Your task to perform on an android device: Open Wikipedia Image 0: 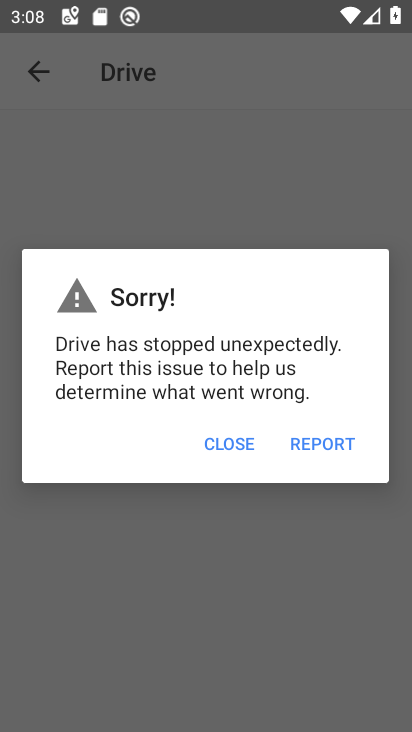
Step 0: press home button
Your task to perform on an android device: Open Wikipedia Image 1: 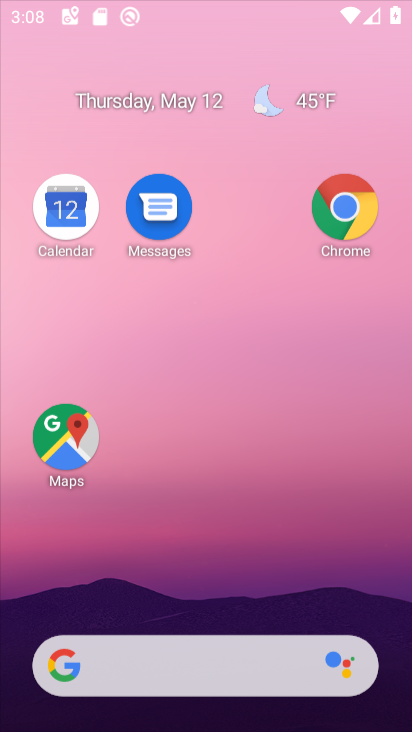
Step 1: drag from (195, 650) to (248, 212)
Your task to perform on an android device: Open Wikipedia Image 2: 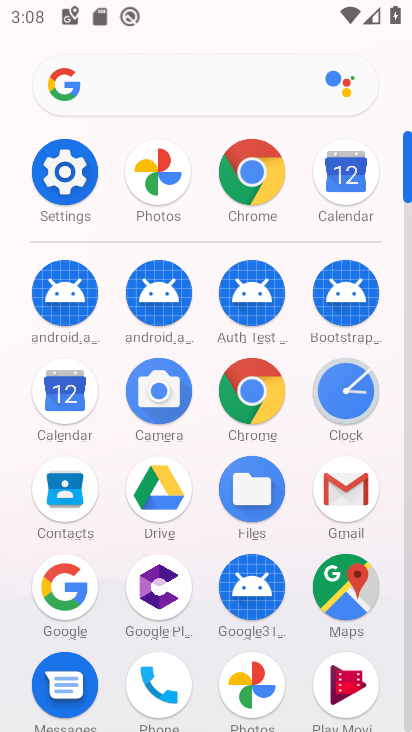
Step 2: click (248, 379)
Your task to perform on an android device: Open Wikipedia Image 3: 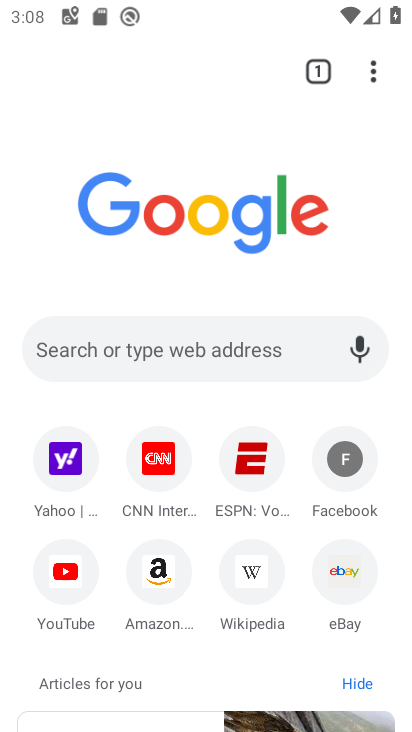
Step 3: click (249, 576)
Your task to perform on an android device: Open Wikipedia Image 4: 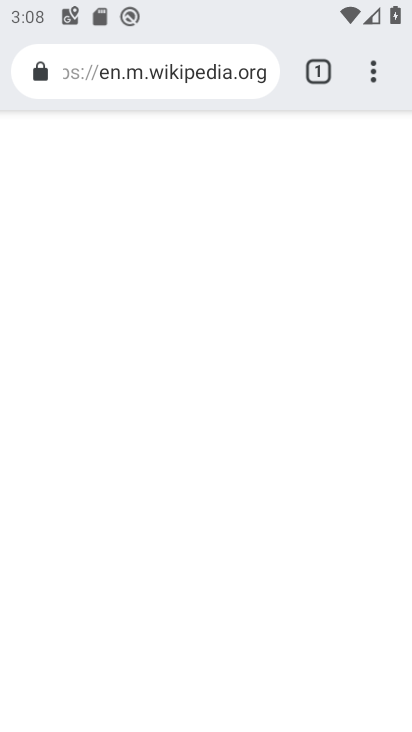
Step 4: task complete